Your task to perform on an android device: change notification settings in the gmail app Image 0: 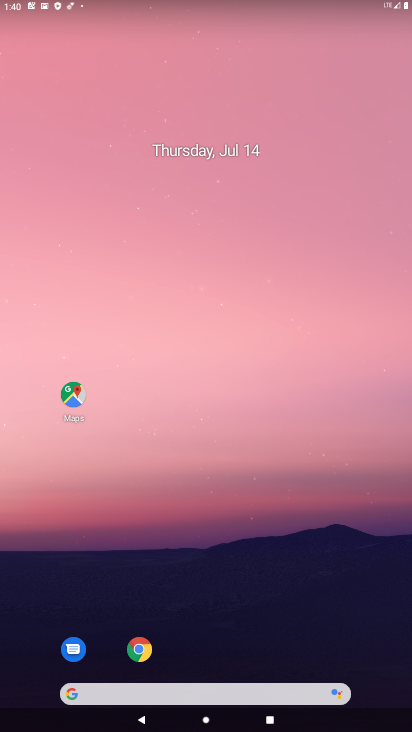
Step 0: drag from (369, 667) to (156, 36)
Your task to perform on an android device: change notification settings in the gmail app Image 1: 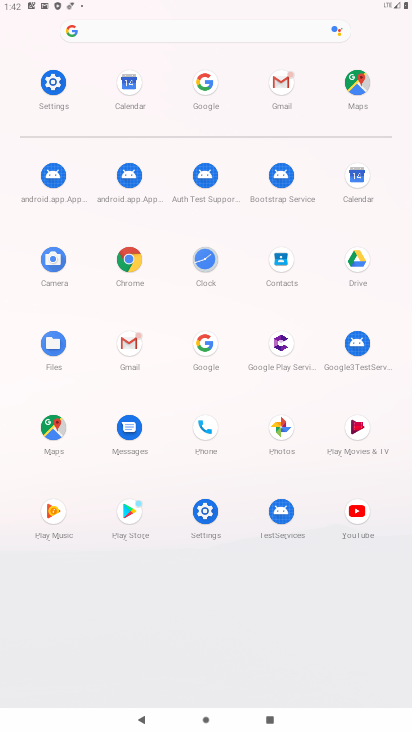
Step 1: click (131, 344)
Your task to perform on an android device: change notification settings in the gmail app Image 2: 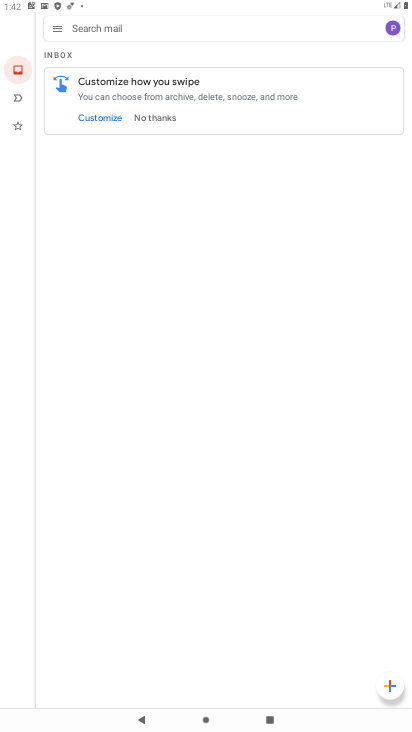
Step 2: click (54, 29)
Your task to perform on an android device: change notification settings in the gmail app Image 3: 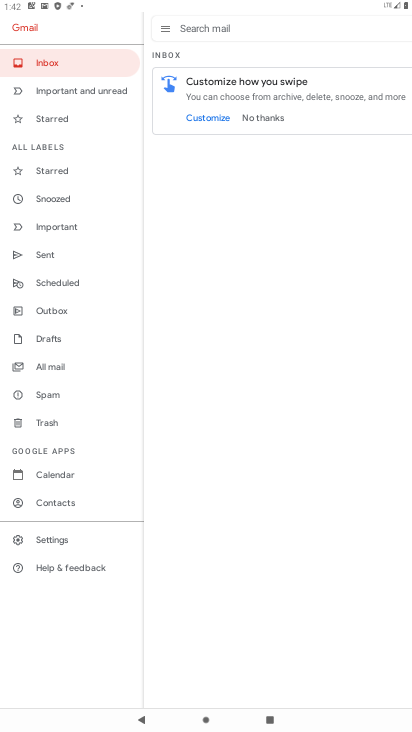
Step 3: click (76, 537)
Your task to perform on an android device: change notification settings in the gmail app Image 4: 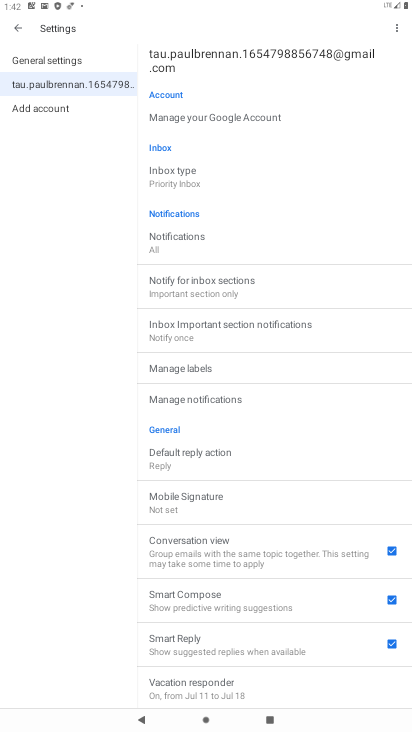
Step 4: click (195, 254)
Your task to perform on an android device: change notification settings in the gmail app Image 5: 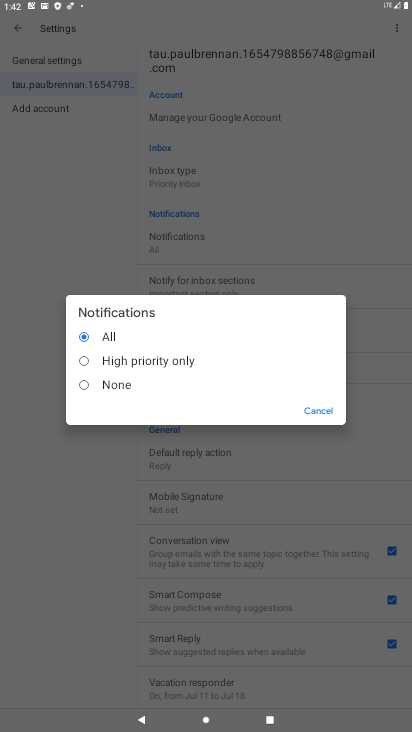
Step 5: click (87, 385)
Your task to perform on an android device: change notification settings in the gmail app Image 6: 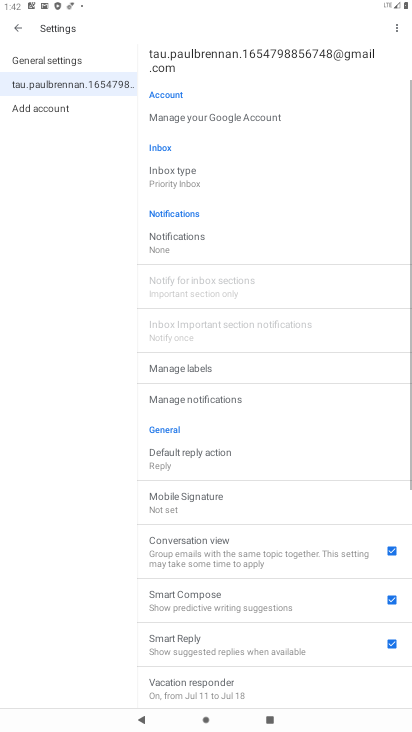
Step 6: task complete